Your task to perform on an android device: Open battery settings Image 0: 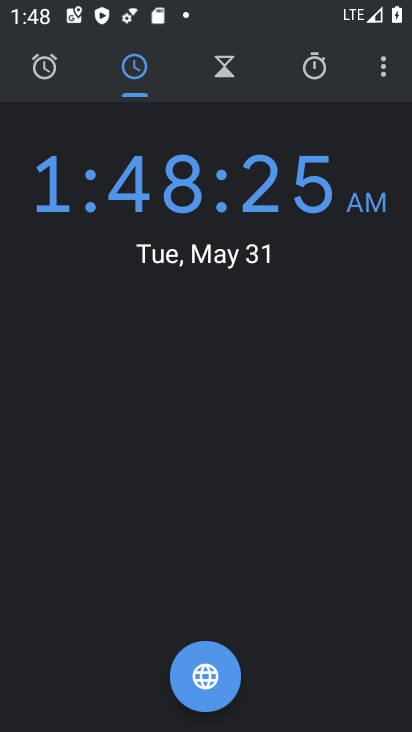
Step 0: press home button
Your task to perform on an android device: Open battery settings Image 1: 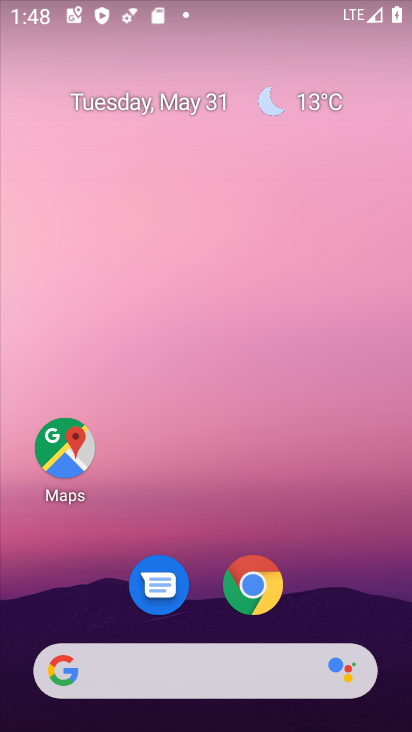
Step 1: drag from (250, 519) to (274, 11)
Your task to perform on an android device: Open battery settings Image 2: 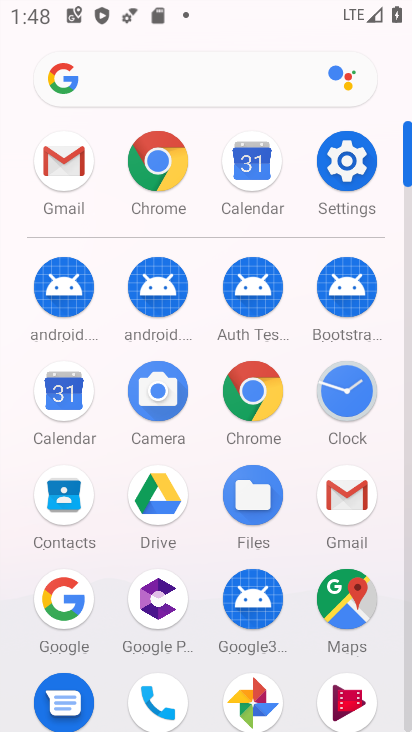
Step 2: click (345, 169)
Your task to perform on an android device: Open battery settings Image 3: 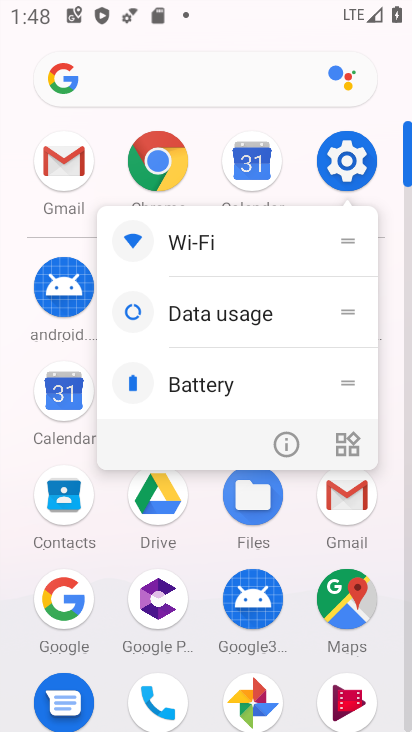
Step 3: click (345, 155)
Your task to perform on an android device: Open battery settings Image 4: 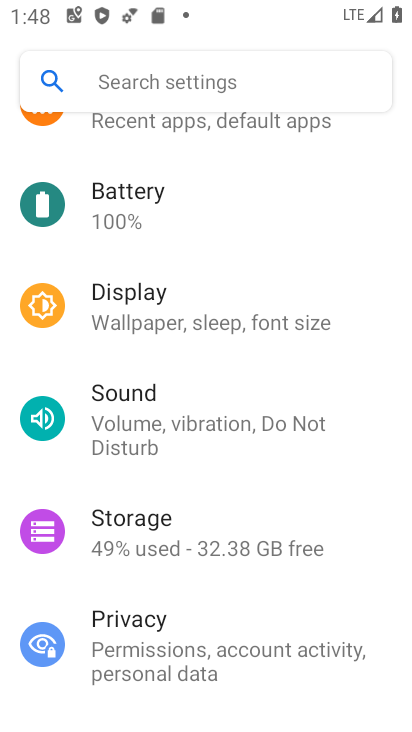
Step 4: click (214, 194)
Your task to perform on an android device: Open battery settings Image 5: 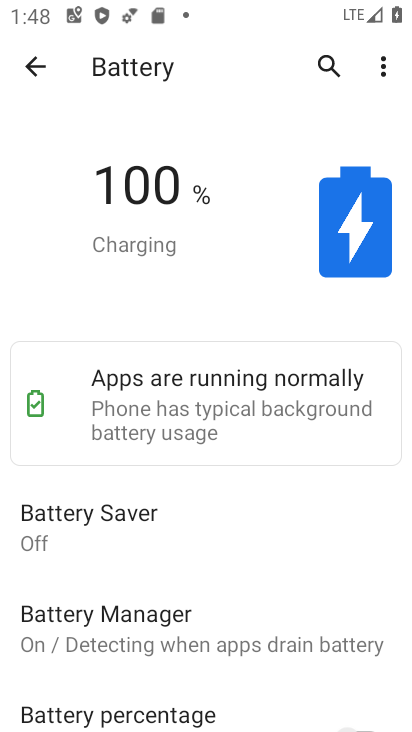
Step 5: task complete